Your task to perform on an android device: Go to Android settings Image 0: 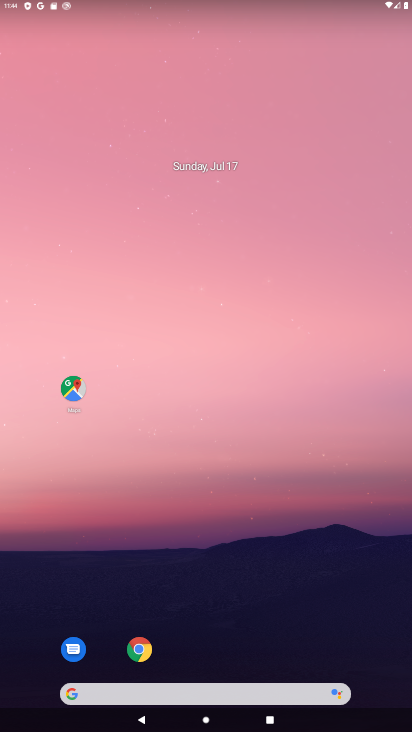
Step 0: drag from (220, 664) to (244, 233)
Your task to perform on an android device: Go to Android settings Image 1: 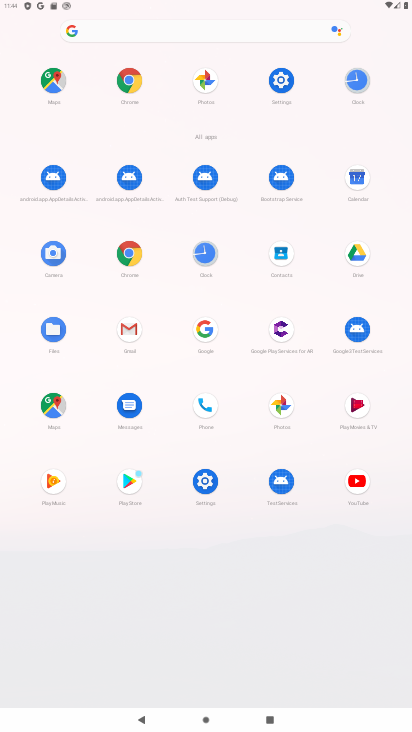
Step 1: click (269, 79)
Your task to perform on an android device: Go to Android settings Image 2: 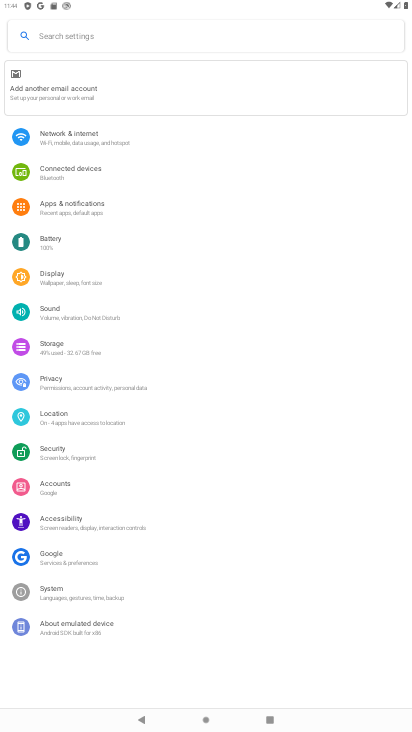
Step 2: task complete